Your task to perform on an android device: see tabs open on other devices in the chrome app Image 0: 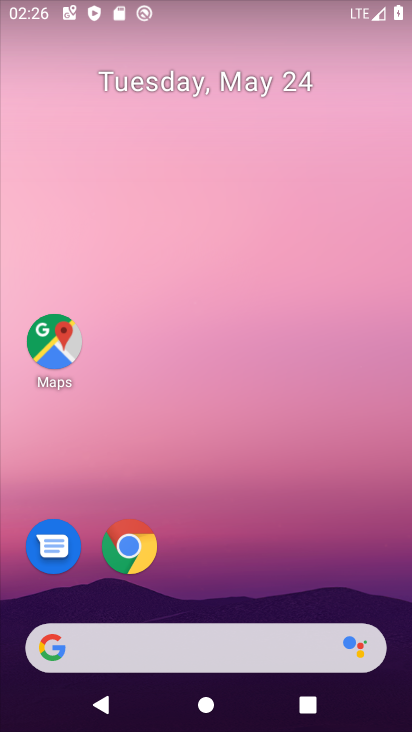
Step 0: drag from (192, 588) to (21, 0)
Your task to perform on an android device: see tabs open on other devices in the chrome app Image 1: 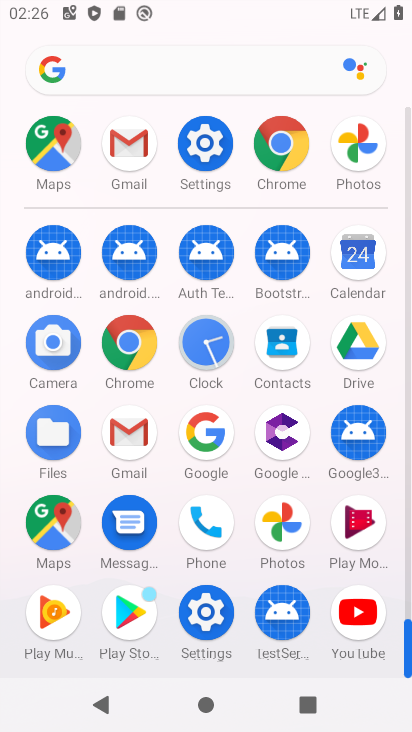
Step 1: click (122, 345)
Your task to perform on an android device: see tabs open on other devices in the chrome app Image 2: 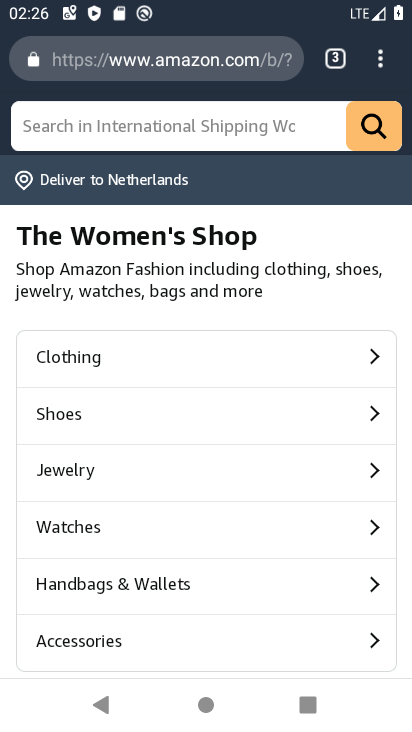
Step 2: drag from (244, 206) to (241, 568)
Your task to perform on an android device: see tabs open on other devices in the chrome app Image 3: 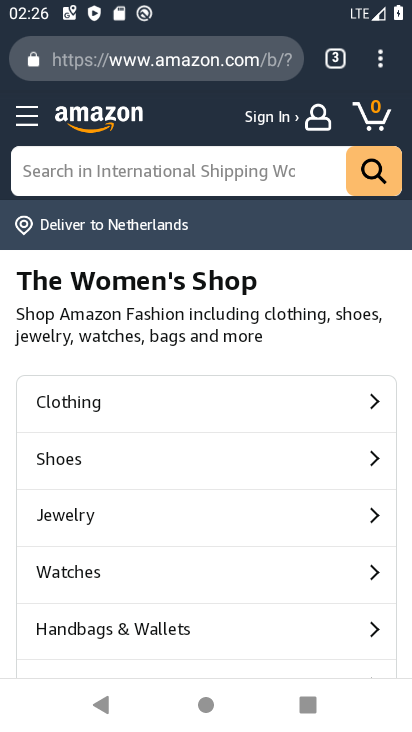
Step 3: click (377, 62)
Your task to perform on an android device: see tabs open on other devices in the chrome app Image 4: 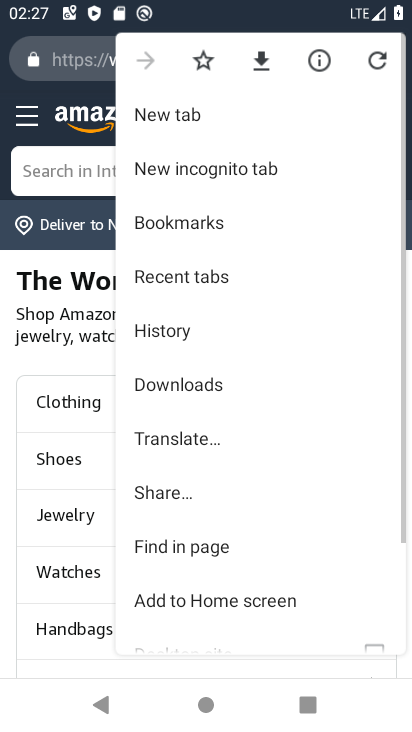
Step 4: drag from (229, 541) to (274, 150)
Your task to perform on an android device: see tabs open on other devices in the chrome app Image 5: 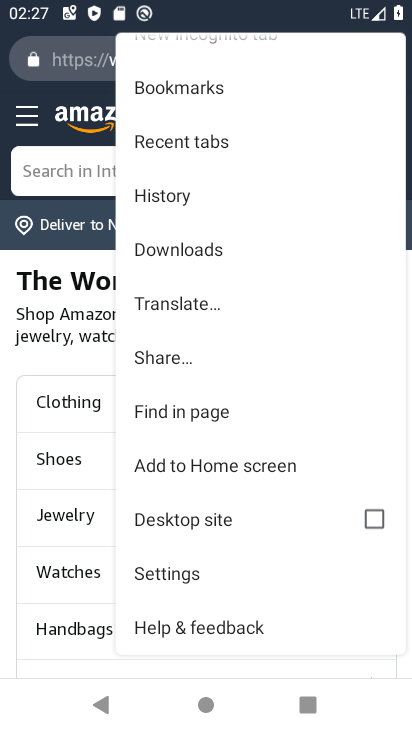
Step 5: click (200, 135)
Your task to perform on an android device: see tabs open on other devices in the chrome app Image 6: 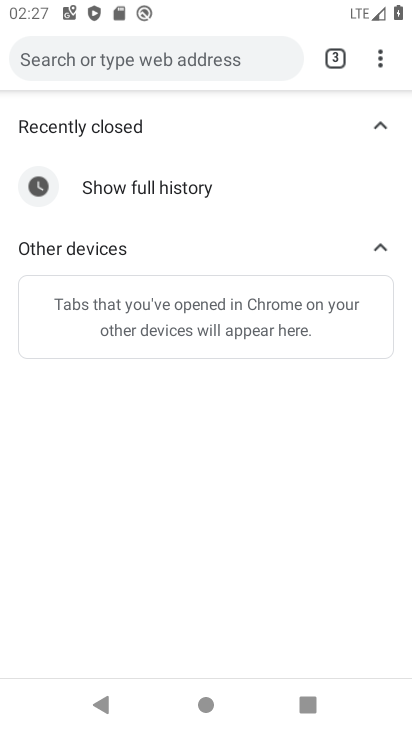
Step 6: click (382, 62)
Your task to perform on an android device: see tabs open on other devices in the chrome app Image 7: 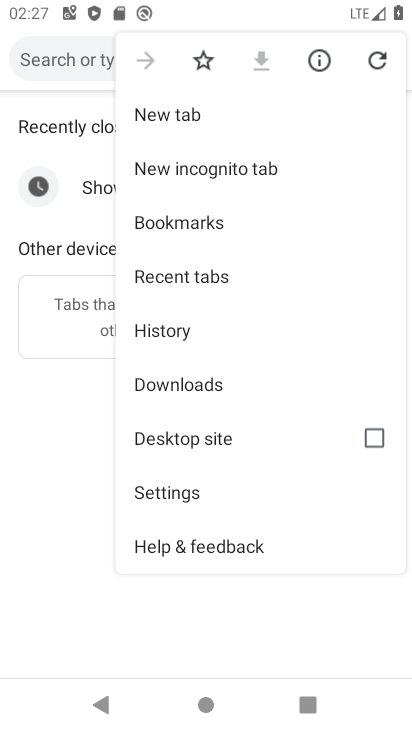
Step 7: click (57, 438)
Your task to perform on an android device: see tabs open on other devices in the chrome app Image 8: 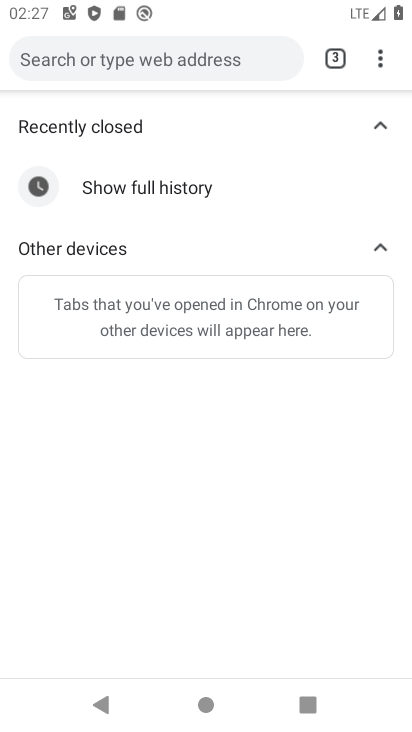
Step 8: task complete